Your task to perform on an android device: make emails show in primary in the gmail app Image 0: 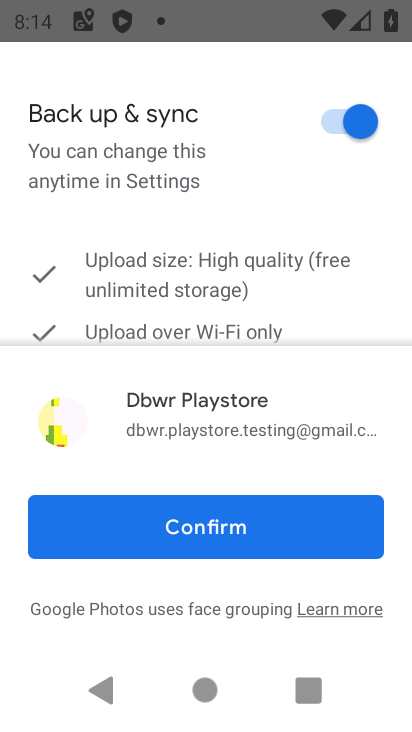
Step 0: press home button
Your task to perform on an android device: make emails show in primary in the gmail app Image 1: 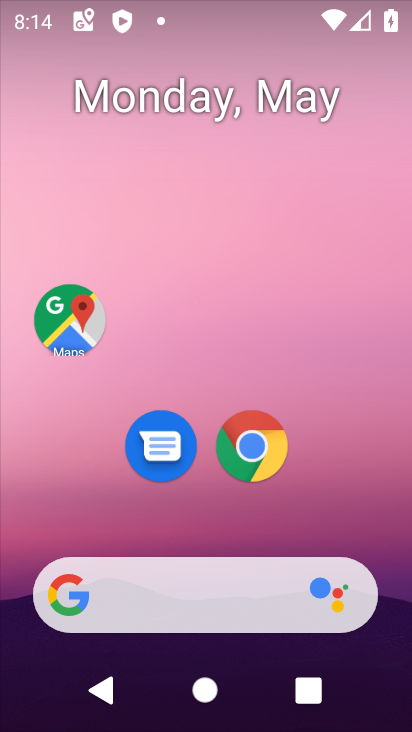
Step 1: drag from (377, 559) to (340, 120)
Your task to perform on an android device: make emails show in primary in the gmail app Image 2: 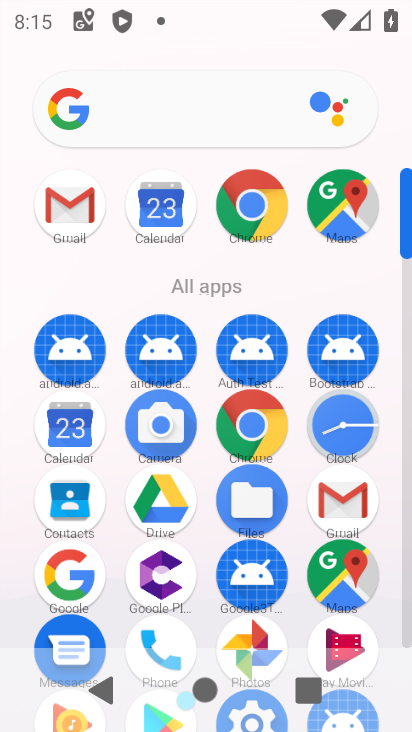
Step 2: click (328, 490)
Your task to perform on an android device: make emails show in primary in the gmail app Image 3: 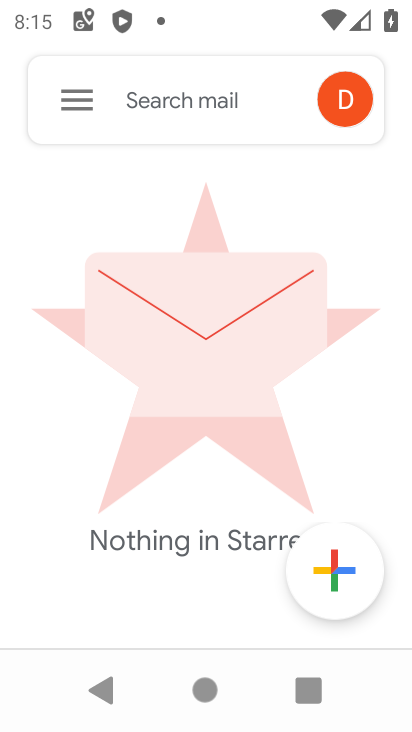
Step 3: click (79, 90)
Your task to perform on an android device: make emails show in primary in the gmail app Image 4: 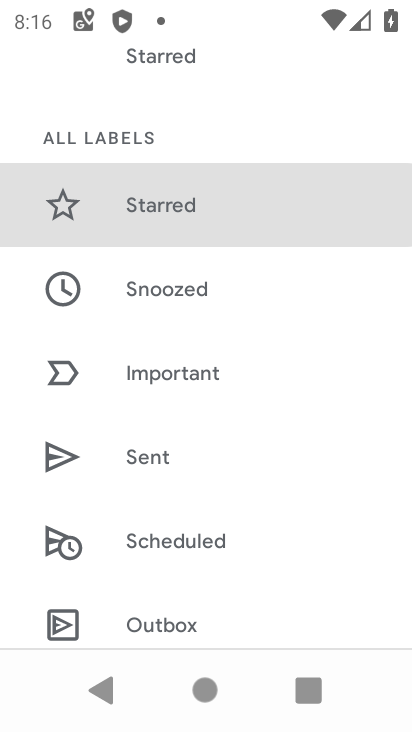
Step 4: drag from (334, 654) to (311, 69)
Your task to perform on an android device: make emails show in primary in the gmail app Image 5: 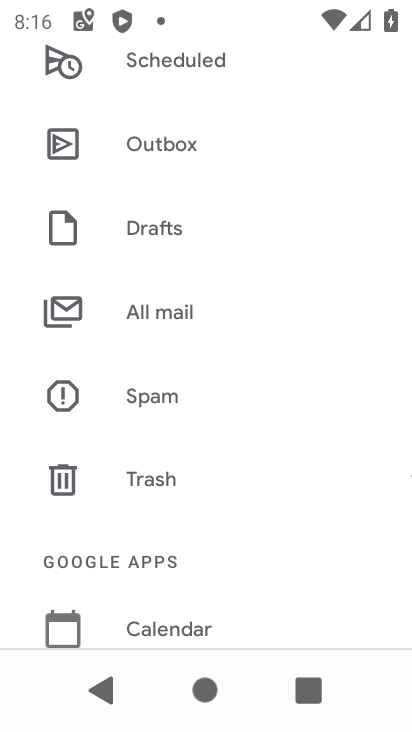
Step 5: drag from (239, 522) to (242, 6)
Your task to perform on an android device: make emails show in primary in the gmail app Image 6: 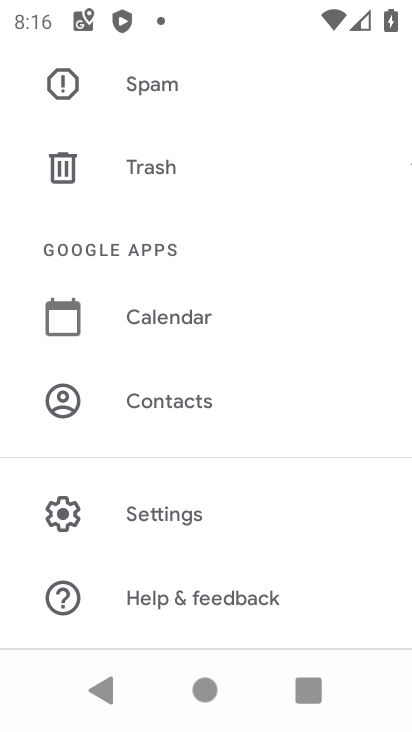
Step 6: click (195, 500)
Your task to perform on an android device: make emails show in primary in the gmail app Image 7: 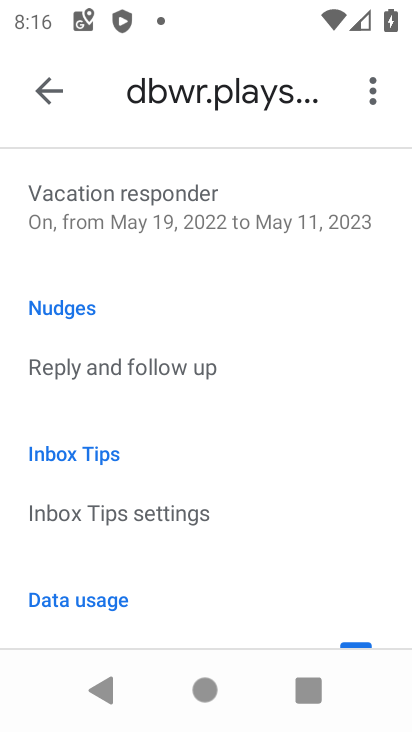
Step 7: drag from (208, 449) to (206, 125)
Your task to perform on an android device: make emails show in primary in the gmail app Image 8: 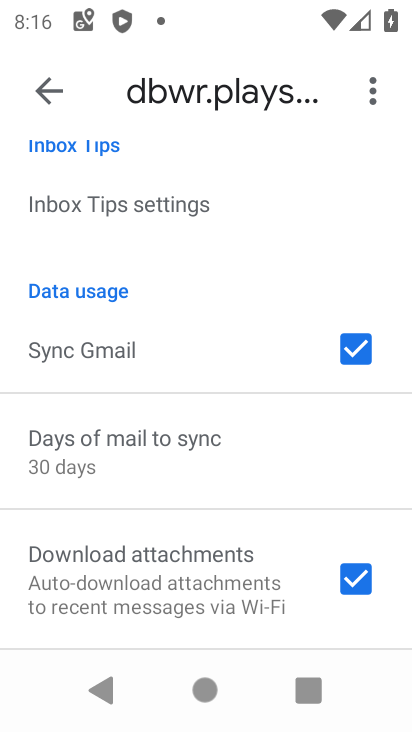
Step 8: drag from (208, 467) to (210, 309)
Your task to perform on an android device: make emails show in primary in the gmail app Image 9: 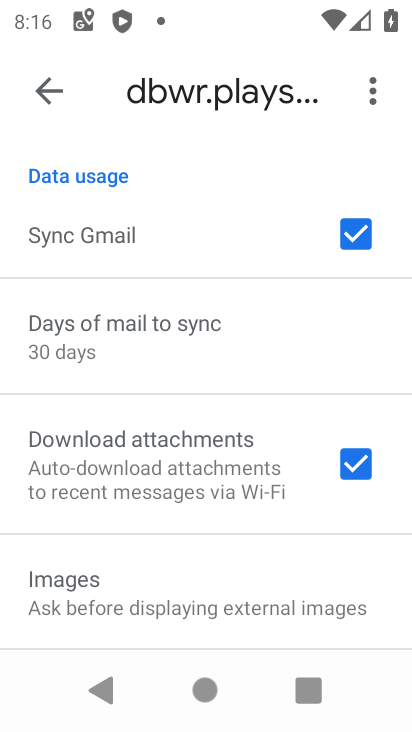
Step 9: drag from (199, 517) to (196, 703)
Your task to perform on an android device: make emails show in primary in the gmail app Image 10: 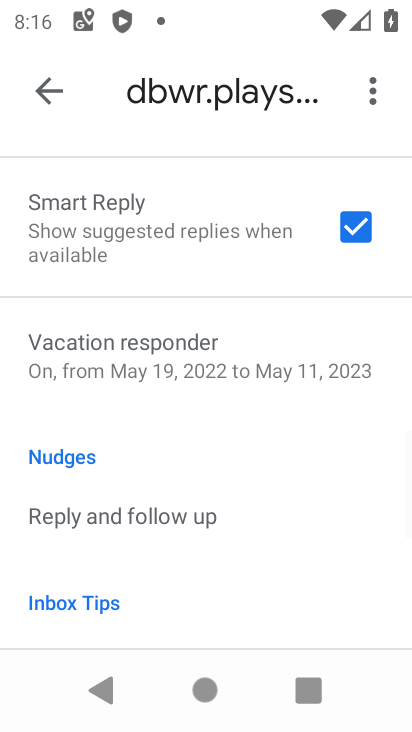
Step 10: drag from (140, 242) to (163, 664)
Your task to perform on an android device: make emails show in primary in the gmail app Image 11: 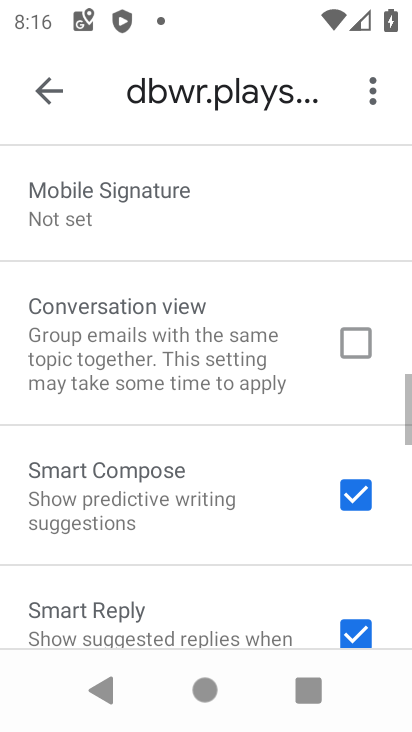
Step 11: drag from (214, 227) to (244, 681)
Your task to perform on an android device: make emails show in primary in the gmail app Image 12: 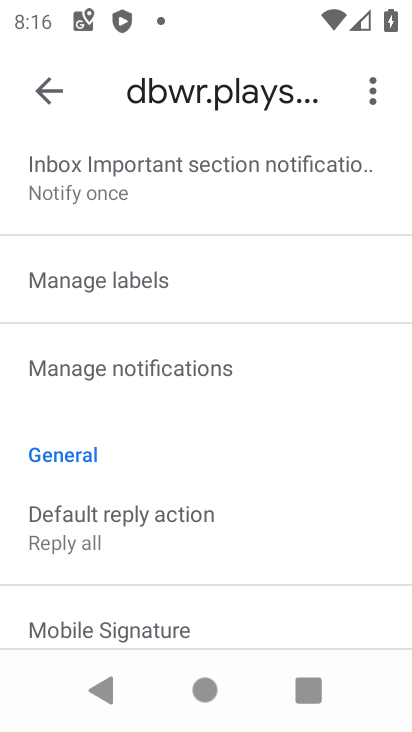
Step 12: drag from (196, 165) to (202, 453)
Your task to perform on an android device: make emails show in primary in the gmail app Image 13: 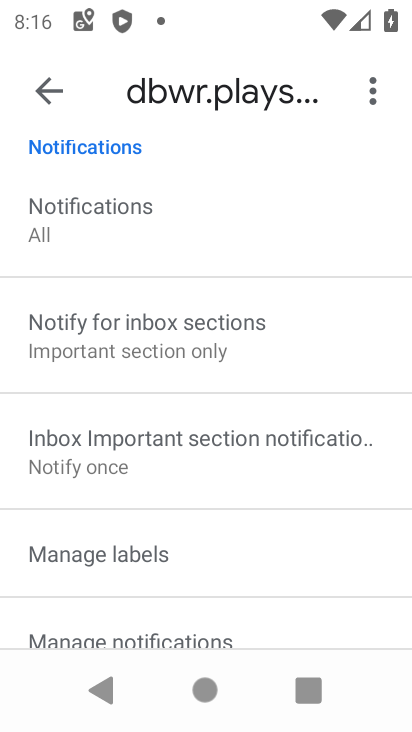
Step 13: drag from (178, 243) to (180, 556)
Your task to perform on an android device: make emails show in primary in the gmail app Image 14: 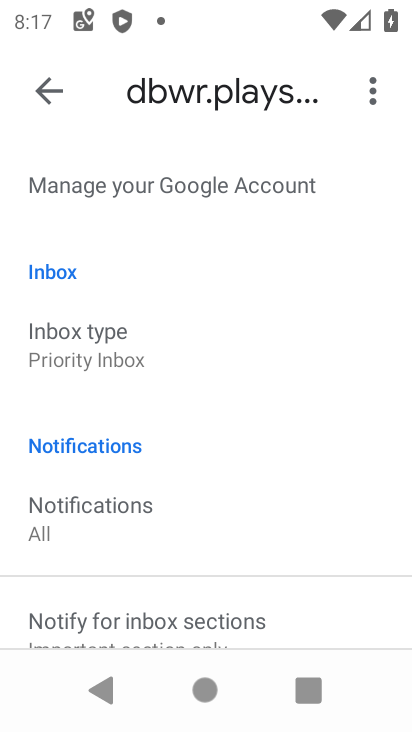
Step 14: click (135, 350)
Your task to perform on an android device: make emails show in primary in the gmail app Image 15: 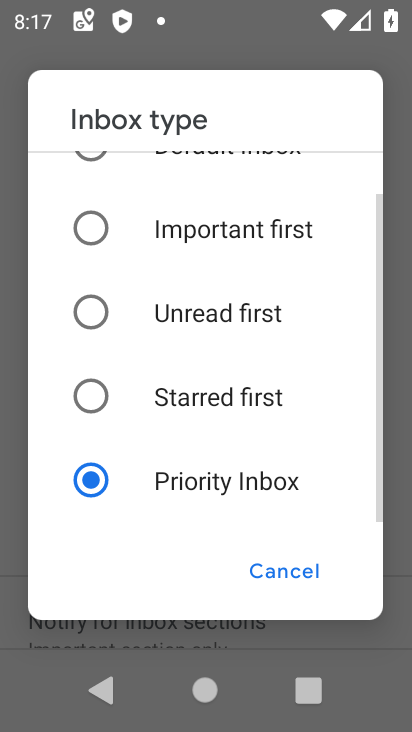
Step 15: drag from (135, 351) to (130, 450)
Your task to perform on an android device: make emails show in primary in the gmail app Image 16: 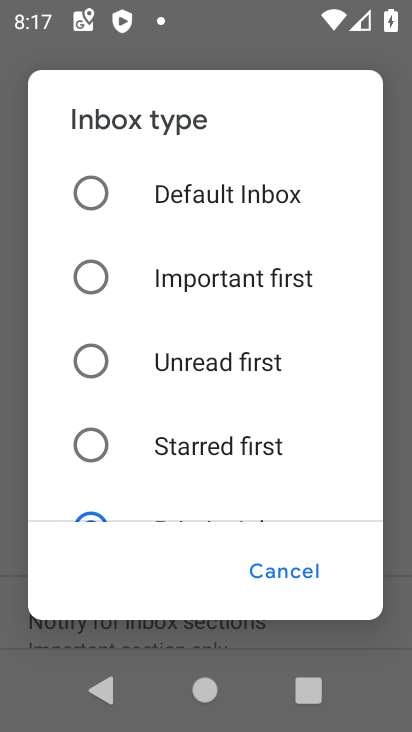
Step 16: click (94, 193)
Your task to perform on an android device: make emails show in primary in the gmail app Image 17: 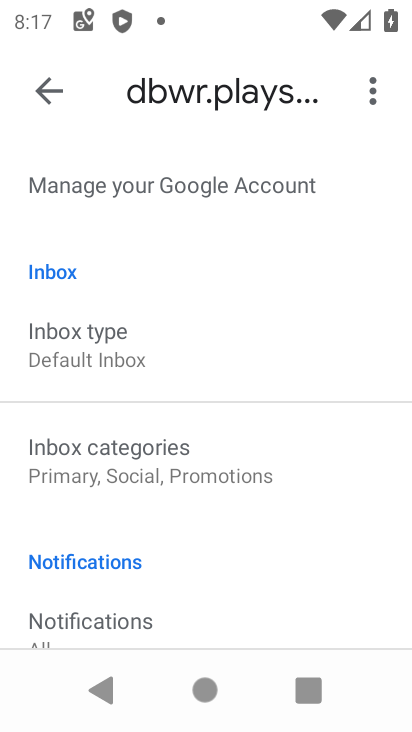
Step 17: click (171, 449)
Your task to perform on an android device: make emails show in primary in the gmail app Image 18: 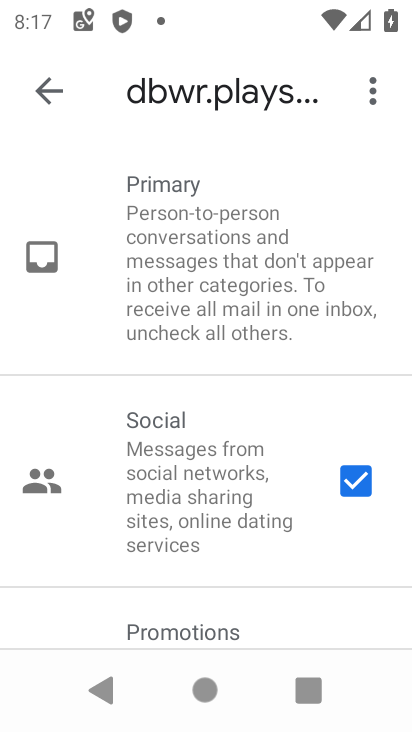
Step 18: click (346, 487)
Your task to perform on an android device: make emails show in primary in the gmail app Image 19: 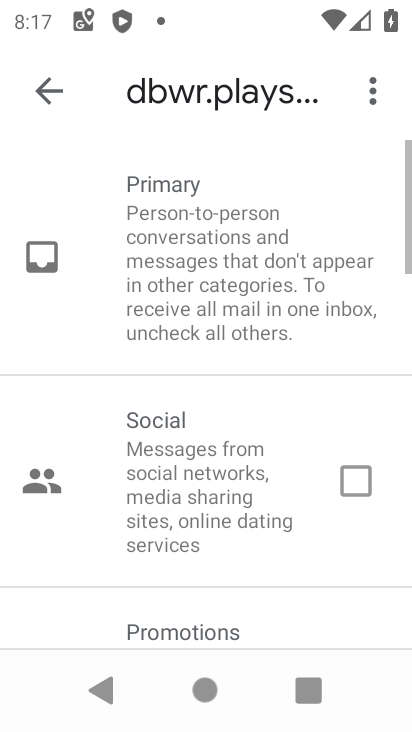
Step 19: drag from (339, 626) to (319, 397)
Your task to perform on an android device: make emails show in primary in the gmail app Image 20: 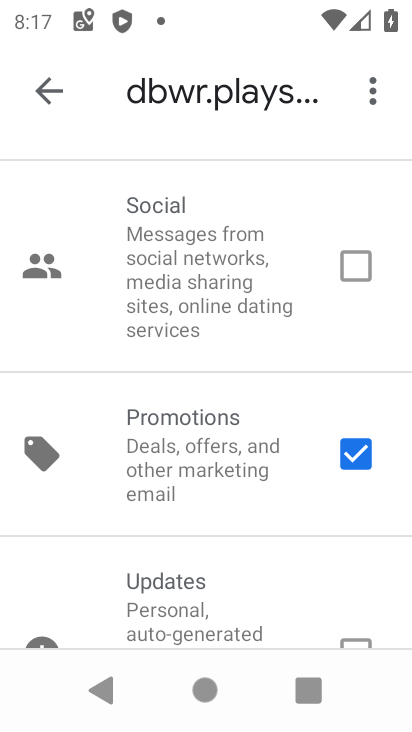
Step 20: click (338, 424)
Your task to perform on an android device: make emails show in primary in the gmail app Image 21: 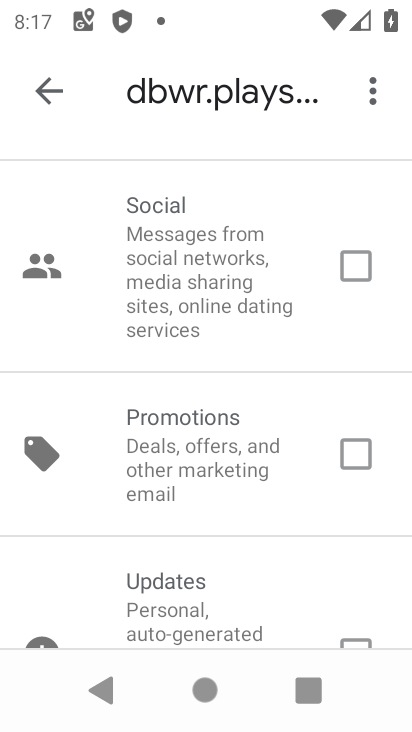
Step 21: task complete